Your task to perform on an android device: Open the stopwatch Image 0: 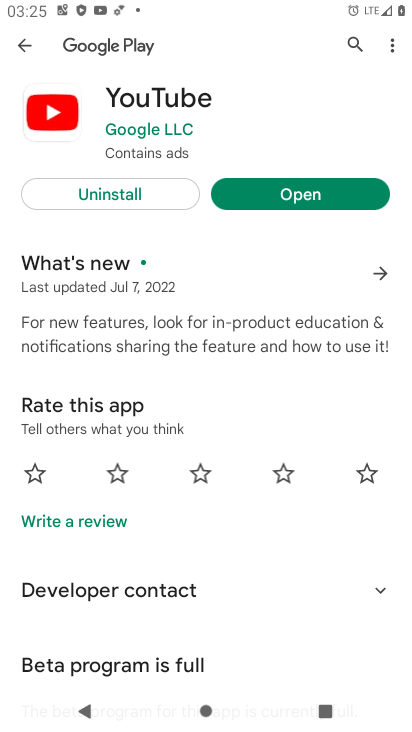
Step 0: press home button
Your task to perform on an android device: Open the stopwatch Image 1: 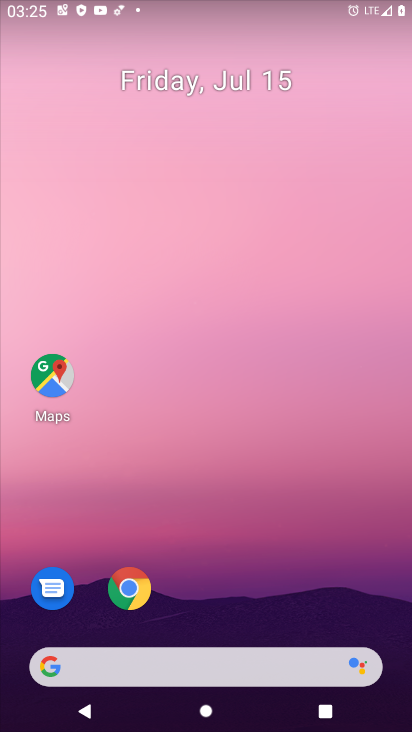
Step 1: drag from (197, 672) to (201, 192)
Your task to perform on an android device: Open the stopwatch Image 2: 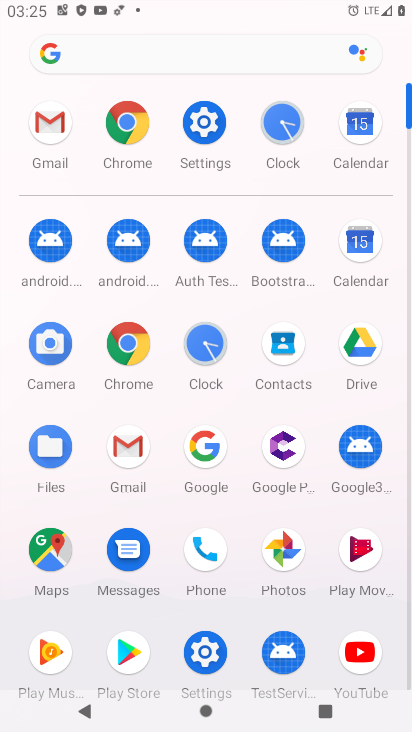
Step 2: click (278, 124)
Your task to perform on an android device: Open the stopwatch Image 3: 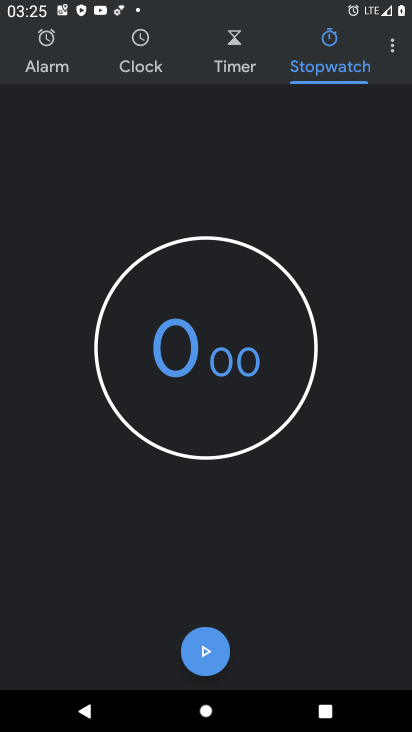
Step 3: task complete